Your task to perform on an android device: clear all cookies in the chrome app Image 0: 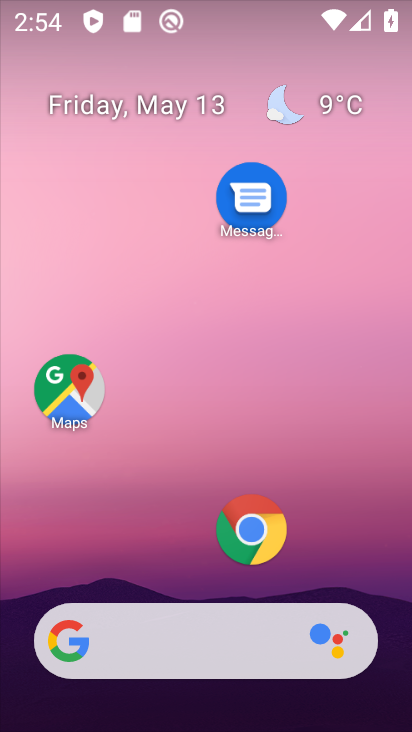
Step 0: click (267, 528)
Your task to perform on an android device: clear all cookies in the chrome app Image 1: 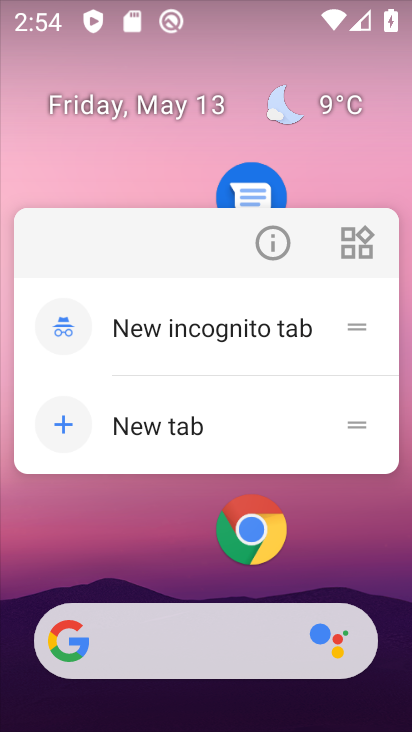
Step 1: click (261, 528)
Your task to perform on an android device: clear all cookies in the chrome app Image 2: 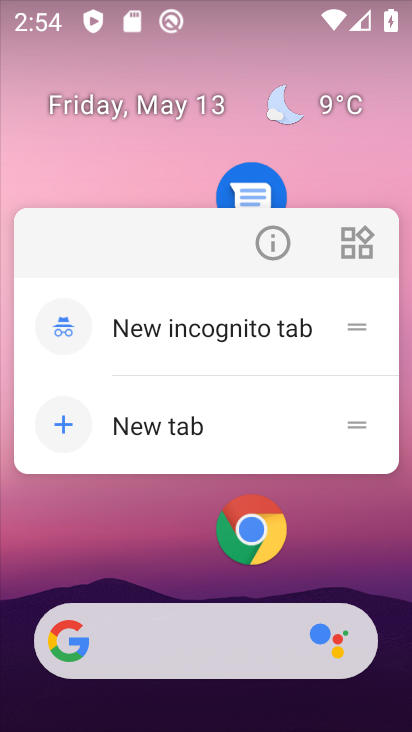
Step 2: click (248, 539)
Your task to perform on an android device: clear all cookies in the chrome app Image 3: 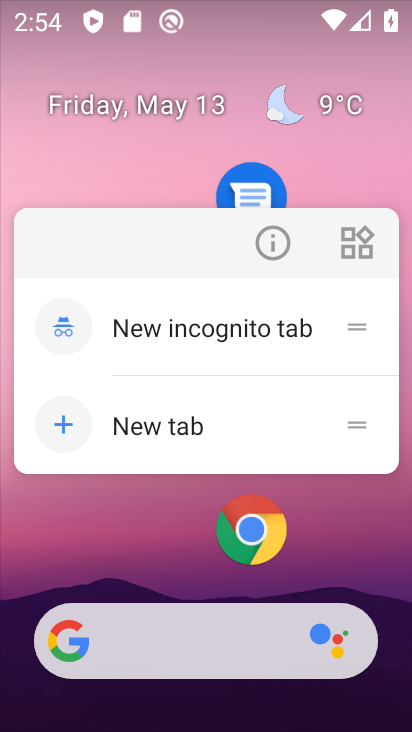
Step 3: click (248, 539)
Your task to perform on an android device: clear all cookies in the chrome app Image 4: 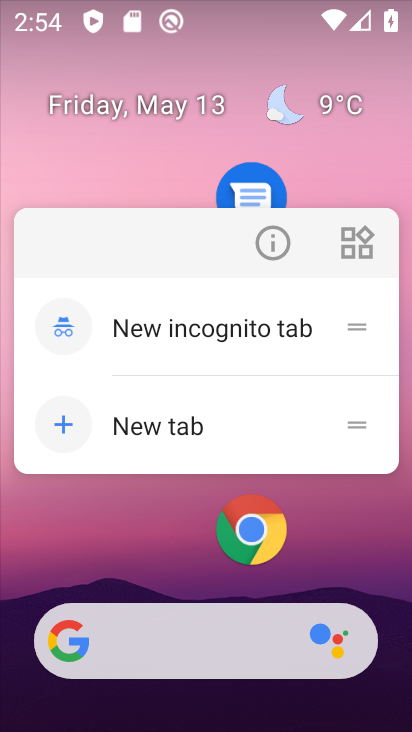
Step 4: click (243, 540)
Your task to perform on an android device: clear all cookies in the chrome app Image 5: 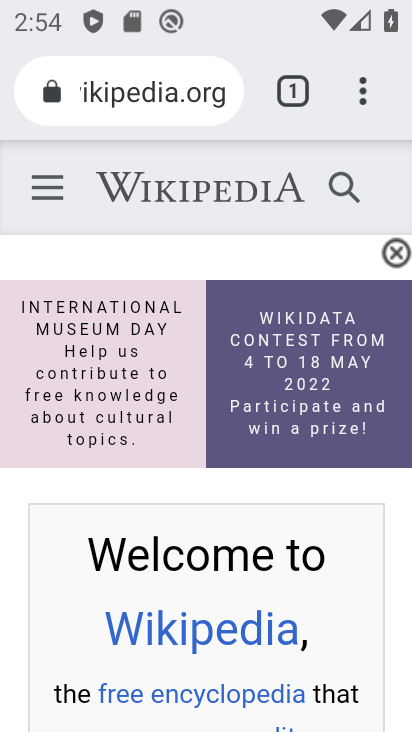
Step 5: drag from (368, 113) to (304, 565)
Your task to perform on an android device: clear all cookies in the chrome app Image 6: 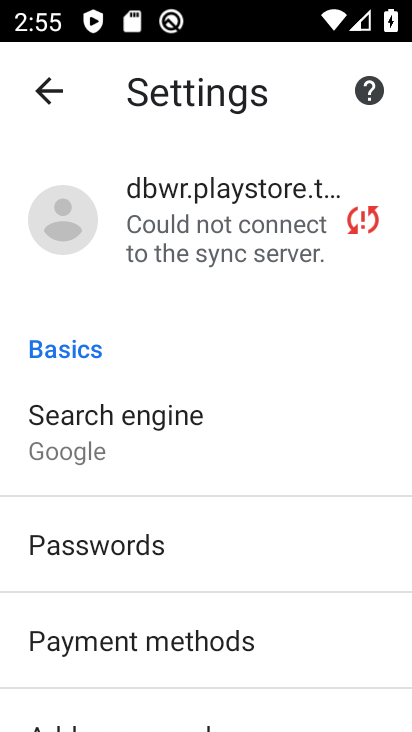
Step 6: drag from (130, 604) to (289, 231)
Your task to perform on an android device: clear all cookies in the chrome app Image 7: 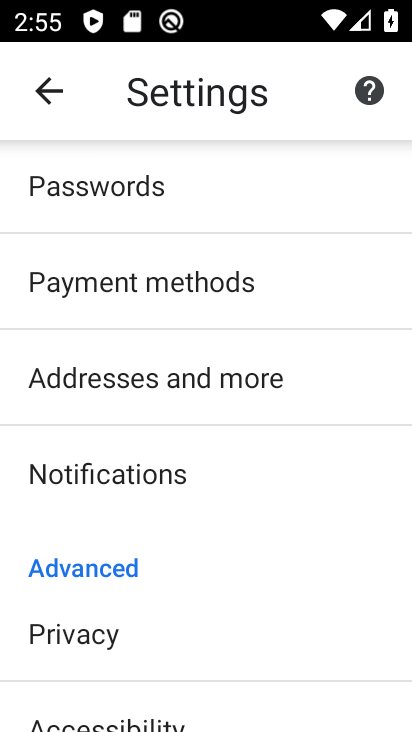
Step 7: drag from (117, 622) to (252, 274)
Your task to perform on an android device: clear all cookies in the chrome app Image 8: 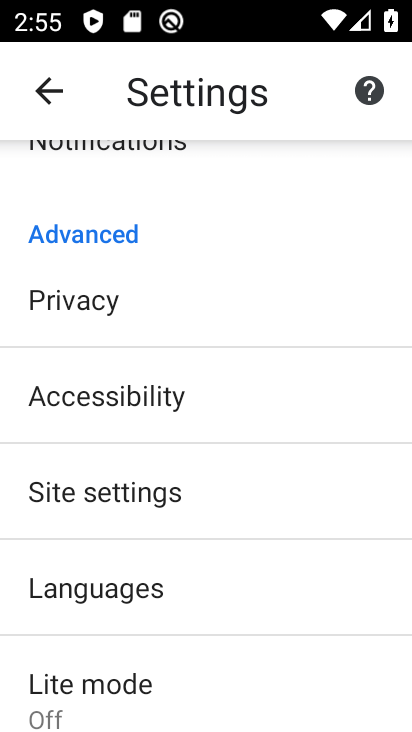
Step 8: drag from (231, 334) to (217, 453)
Your task to perform on an android device: clear all cookies in the chrome app Image 9: 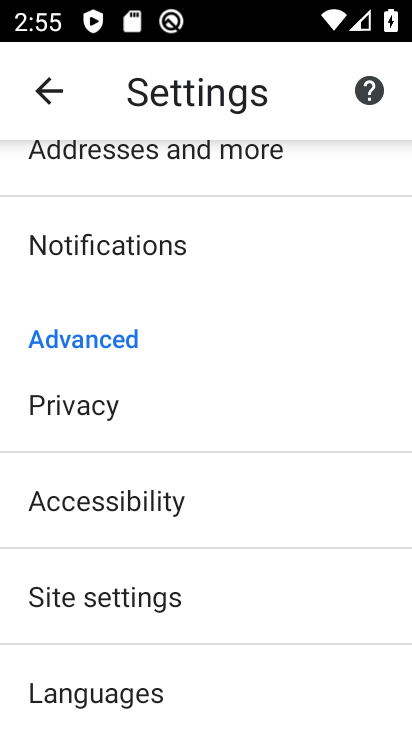
Step 9: click (196, 435)
Your task to perform on an android device: clear all cookies in the chrome app Image 10: 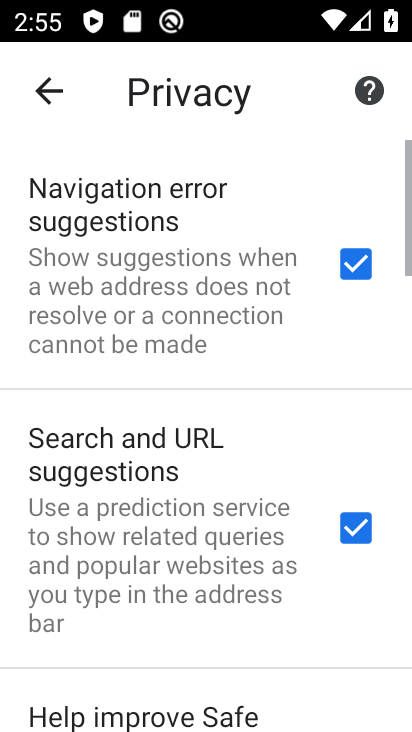
Step 10: drag from (172, 590) to (315, 114)
Your task to perform on an android device: clear all cookies in the chrome app Image 11: 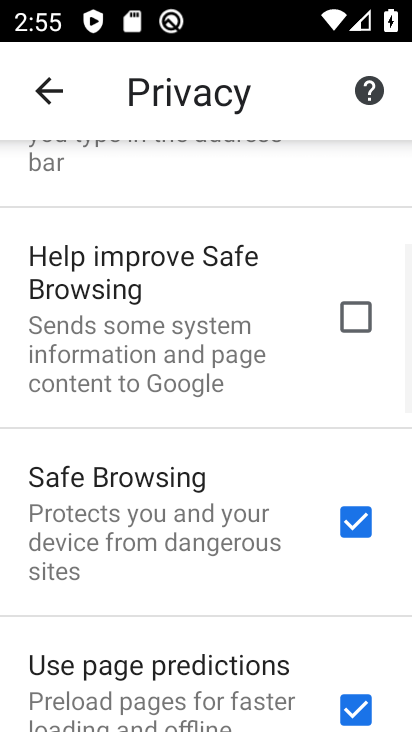
Step 11: drag from (185, 590) to (291, 169)
Your task to perform on an android device: clear all cookies in the chrome app Image 12: 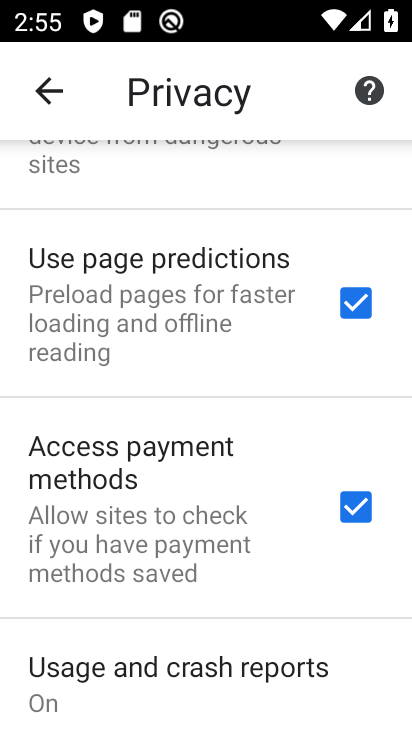
Step 12: drag from (176, 579) to (322, 207)
Your task to perform on an android device: clear all cookies in the chrome app Image 13: 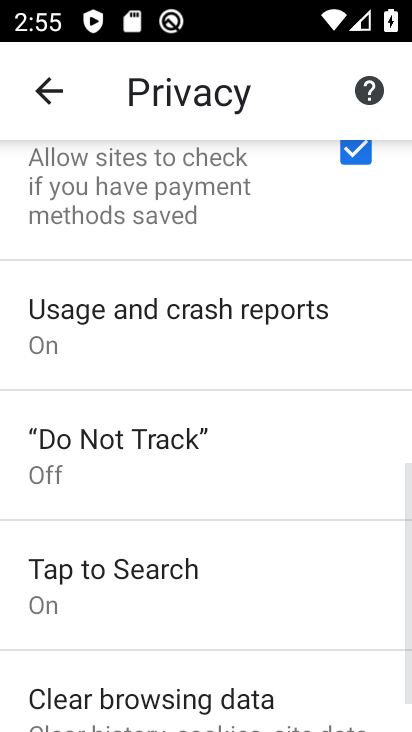
Step 13: drag from (188, 618) to (312, 233)
Your task to perform on an android device: clear all cookies in the chrome app Image 14: 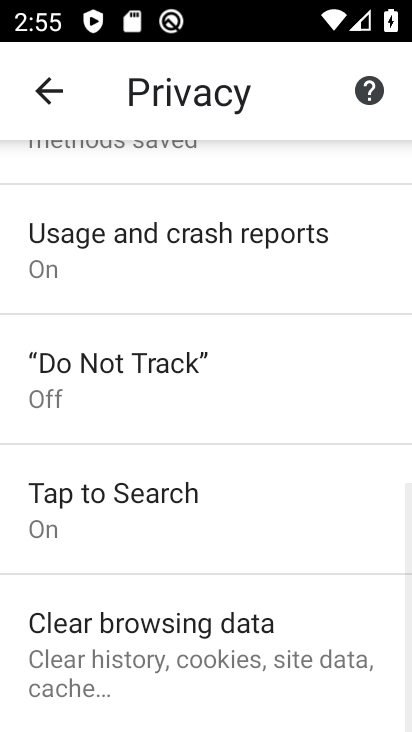
Step 14: click (218, 638)
Your task to perform on an android device: clear all cookies in the chrome app Image 15: 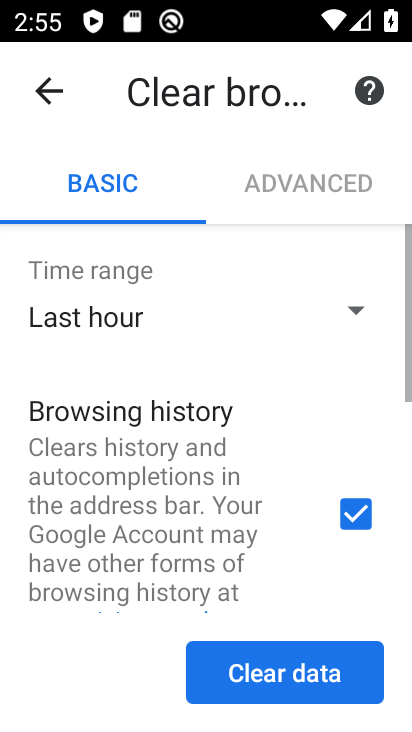
Step 15: drag from (249, 524) to (330, 217)
Your task to perform on an android device: clear all cookies in the chrome app Image 16: 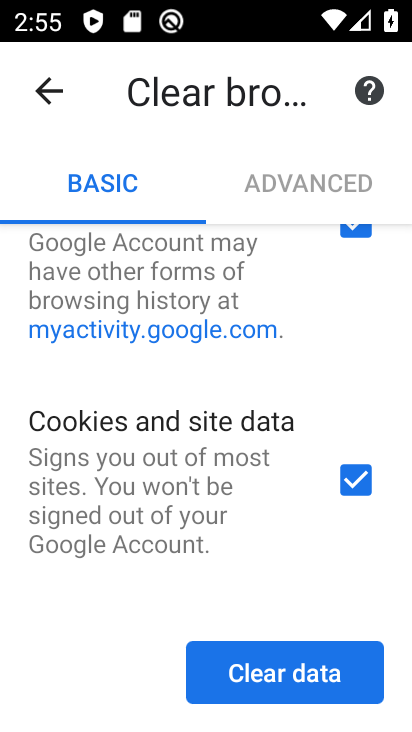
Step 16: click (348, 230)
Your task to perform on an android device: clear all cookies in the chrome app Image 17: 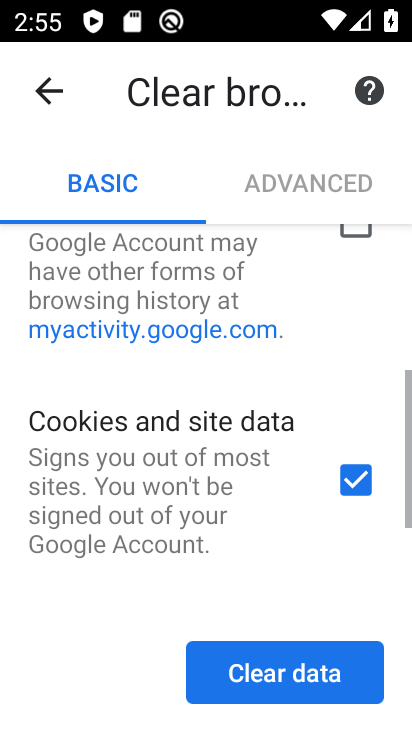
Step 17: drag from (190, 535) to (286, 250)
Your task to perform on an android device: clear all cookies in the chrome app Image 18: 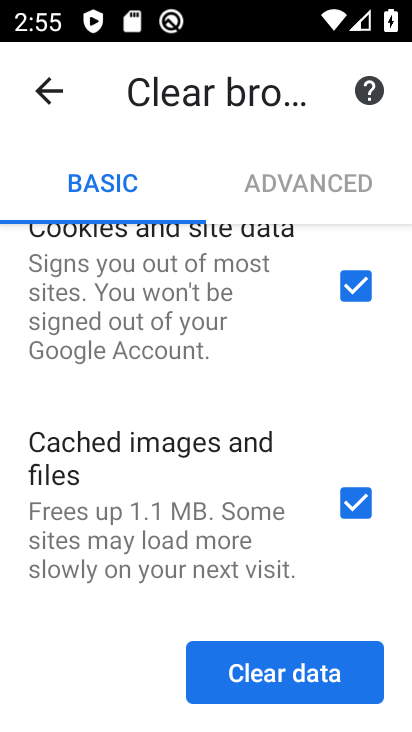
Step 18: click (366, 516)
Your task to perform on an android device: clear all cookies in the chrome app Image 19: 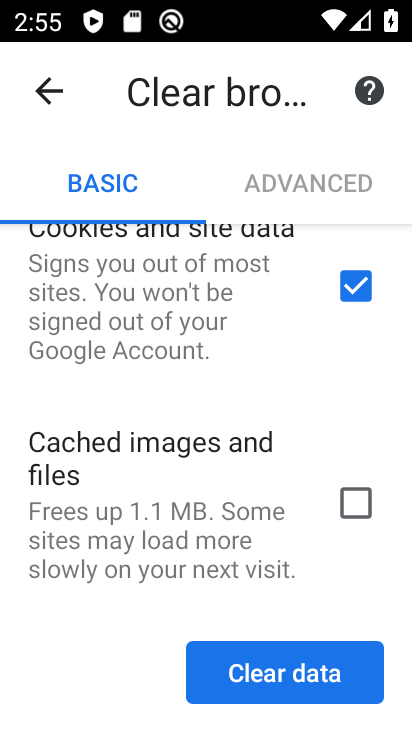
Step 19: click (292, 666)
Your task to perform on an android device: clear all cookies in the chrome app Image 20: 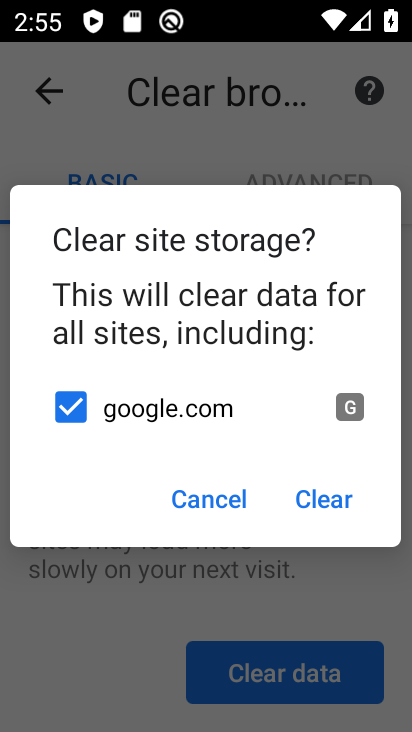
Step 20: click (316, 522)
Your task to perform on an android device: clear all cookies in the chrome app Image 21: 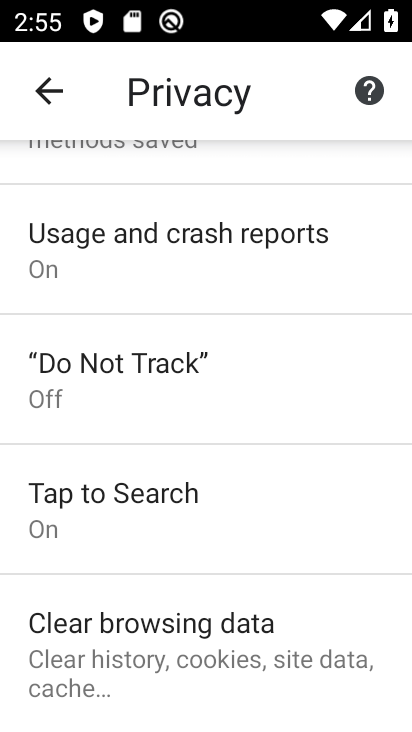
Step 21: task complete